Your task to perform on an android device: Open settings Image 0: 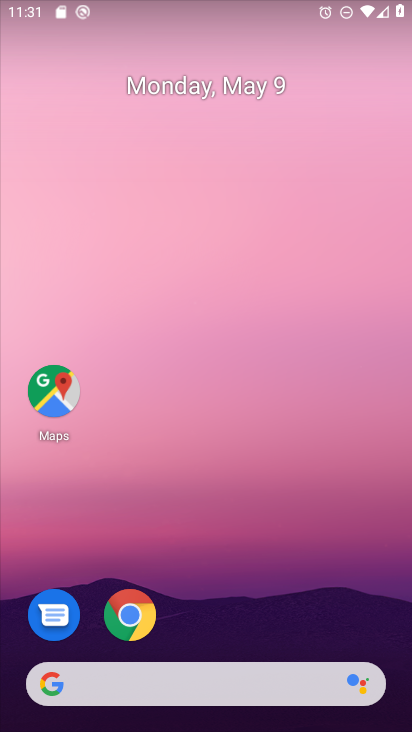
Step 0: drag from (302, 716) to (231, 288)
Your task to perform on an android device: Open settings Image 1: 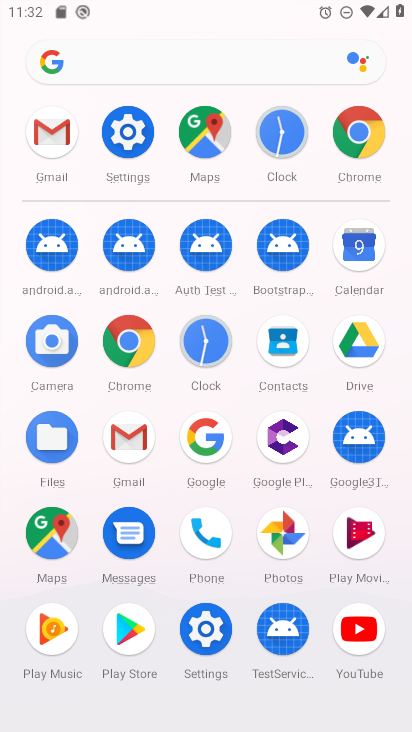
Step 1: click (137, 136)
Your task to perform on an android device: Open settings Image 2: 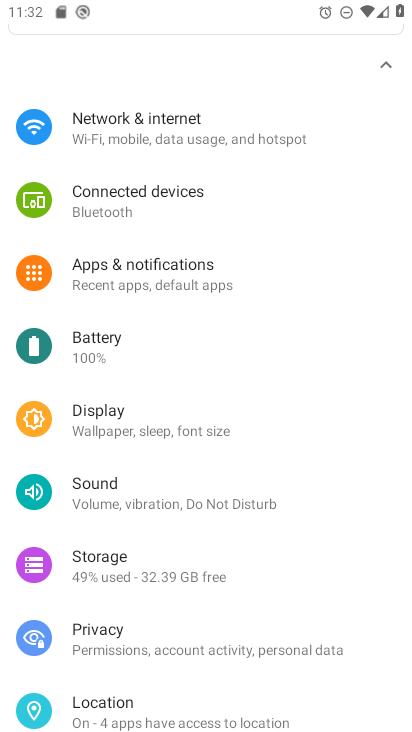
Step 2: task complete